Your task to perform on an android device: see creations saved in the google photos Image 0: 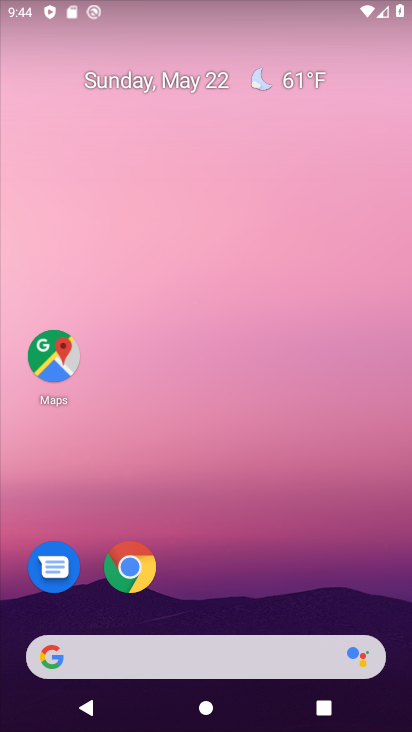
Step 0: drag from (205, 622) to (184, 12)
Your task to perform on an android device: see creations saved in the google photos Image 1: 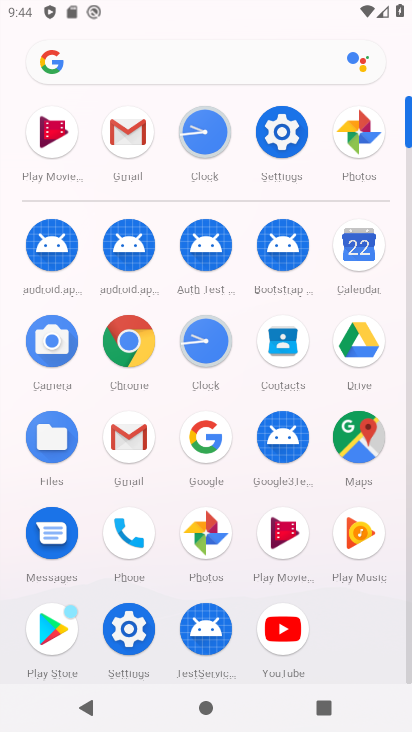
Step 1: click (207, 548)
Your task to perform on an android device: see creations saved in the google photos Image 2: 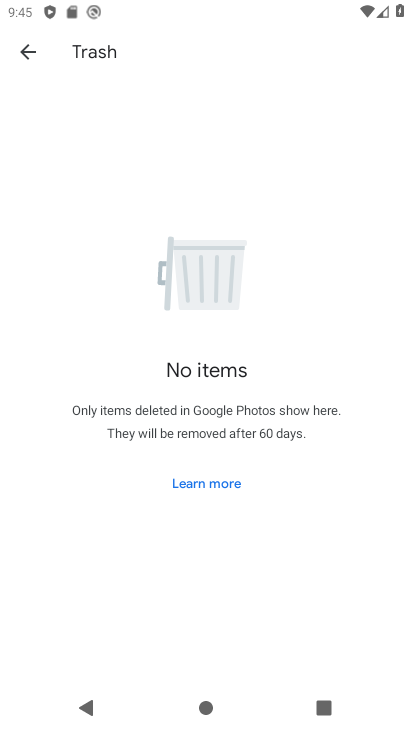
Step 2: click (22, 54)
Your task to perform on an android device: see creations saved in the google photos Image 3: 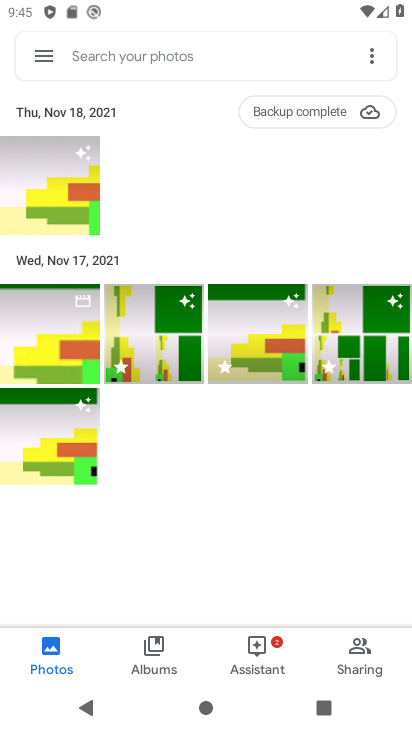
Step 3: click (158, 51)
Your task to perform on an android device: see creations saved in the google photos Image 4: 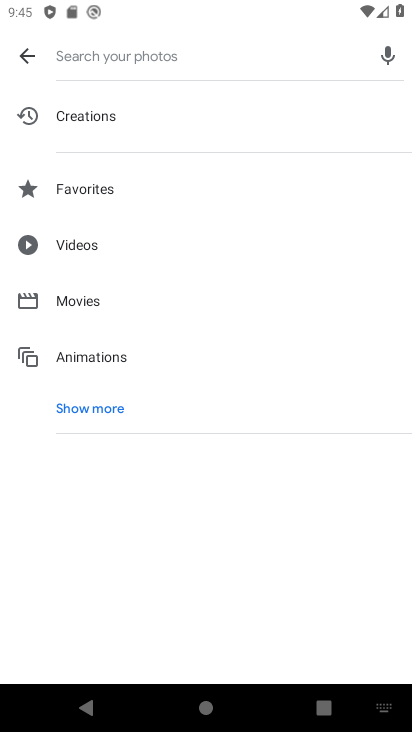
Step 4: click (99, 395)
Your task to perform on an android device: see creations saved in the google photos Image 5: 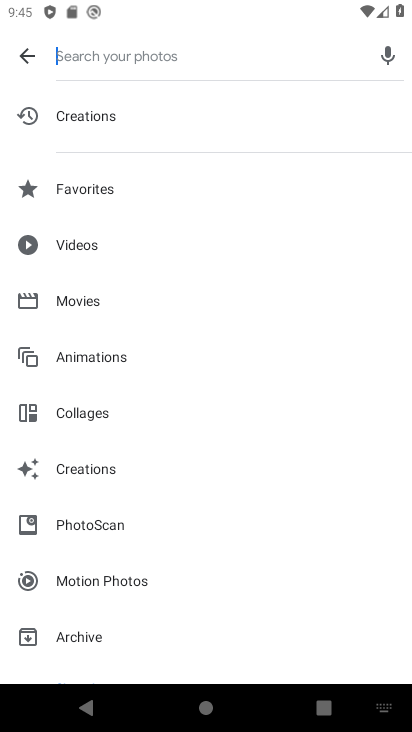
Step 5: click (78, 457)
Your task to perform on an android device: see creations saved in the google photos Image 6: 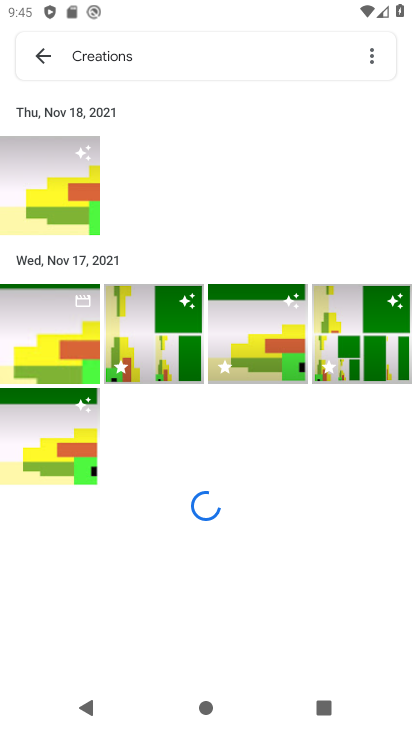
Step 6: task complete